Your task to perform on an android device: see tabs open on other devices in the chrome app Image 0: 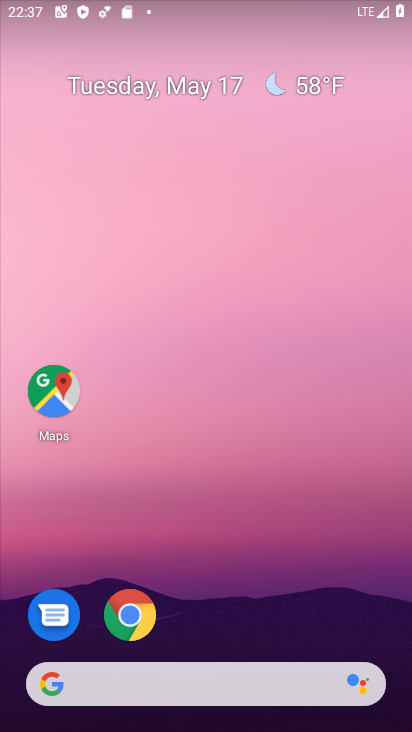
Step 0: click (113, 604)
Your task to perform on an android device: see tabs open on other devices in the chrome app Image 1: 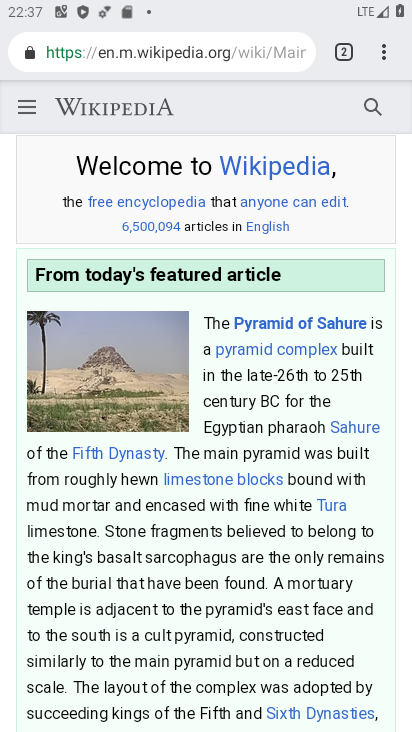
Step 1: task complete